Your task to perform on an android device: Go to Maps Image 0: 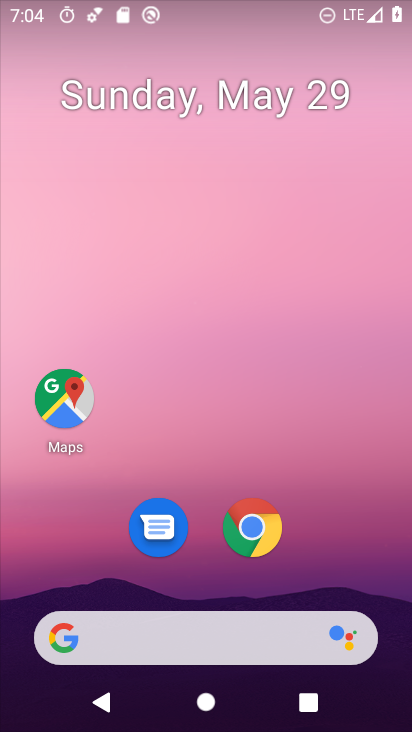
Step 0: drag from (362, 612) to (268, 62)
Your task to perform on an android device: Go to Maps Image 1: 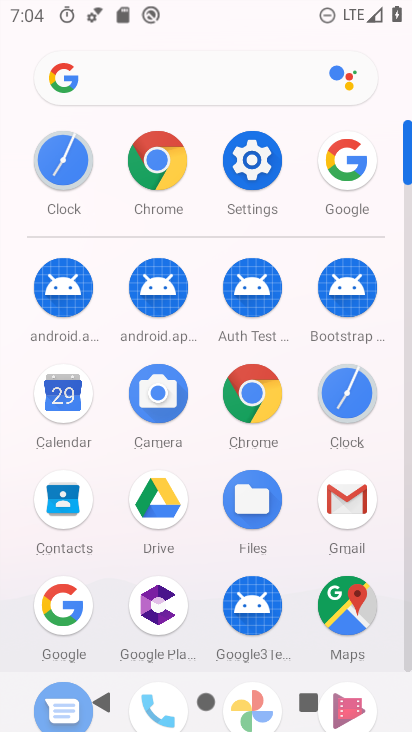
Step 1: click (332, 623)
Your task to perform on an android device: Go to Maps Image 2: 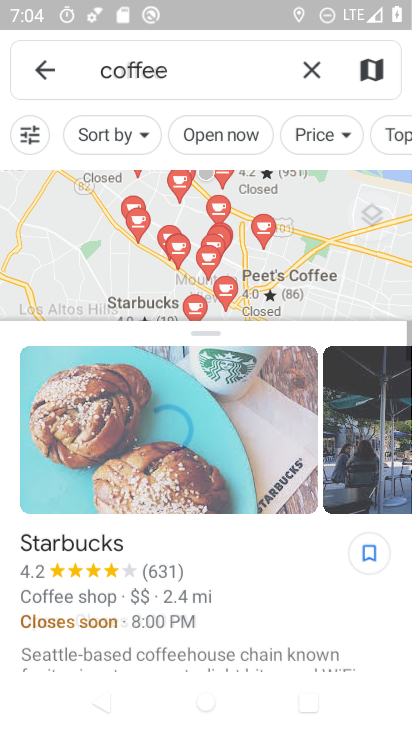
Step 2: click (318, 79)
Your task to perform on an android device: Go to Maps Image 3: 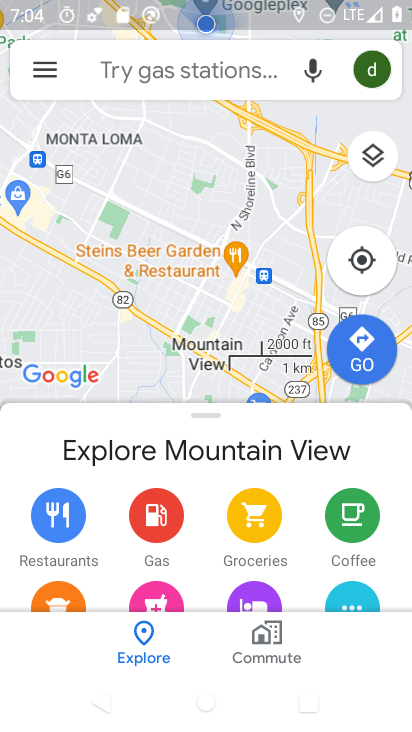
Step 3: task complete